Your task to perform on an android device: turn off wifi Image 0: 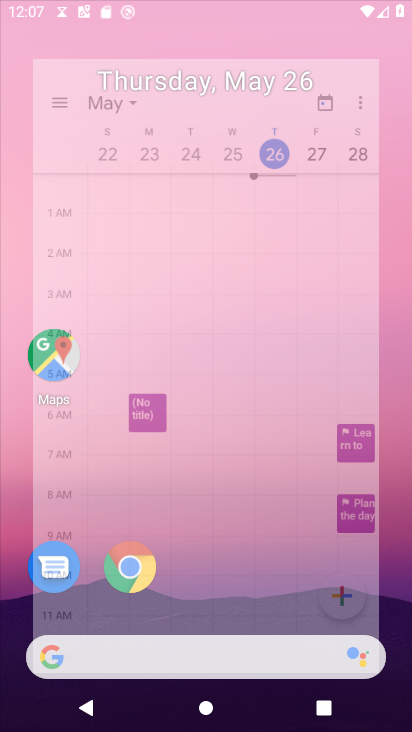
Step 0: drag from (295, 552) to (190, 68)
Your task to perform on an android device: turn off wifi Image 1: 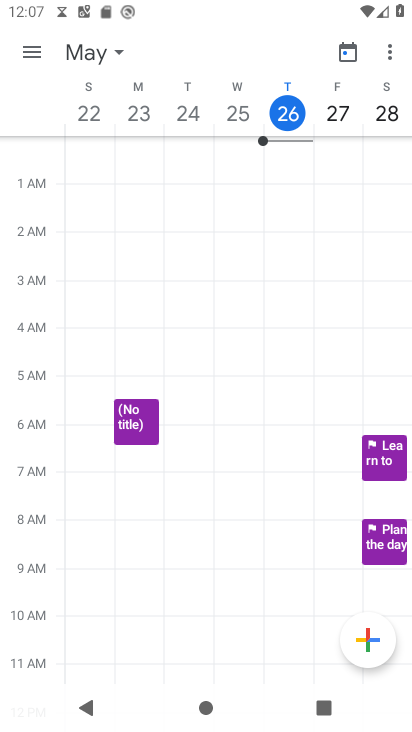
Step 1: press home button
Your task to perform on an android device: turn off wifi Image 2: 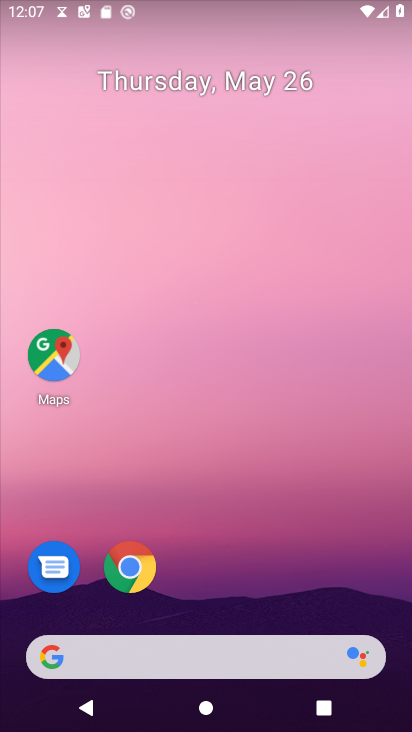
Step 2: drag from (201, 215) to (180, 684)
Your task to perform on an android device: turn off wifi Image 3: 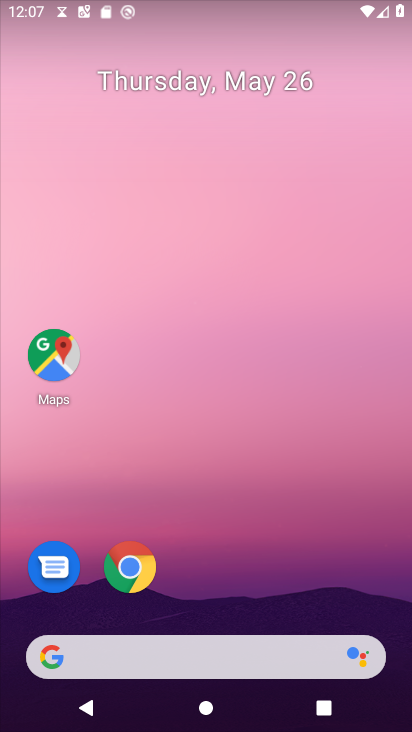
Step 3: drag from (253, 17) to (257, 730)
Your task to perform on an android device: turn off wifi Image 4: 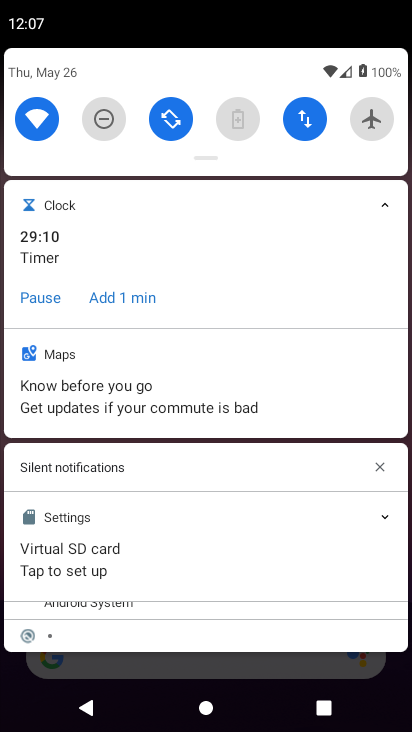
Step 4: click (26, 107)
Your task to perform on an android device: turn off wifi Image 5: 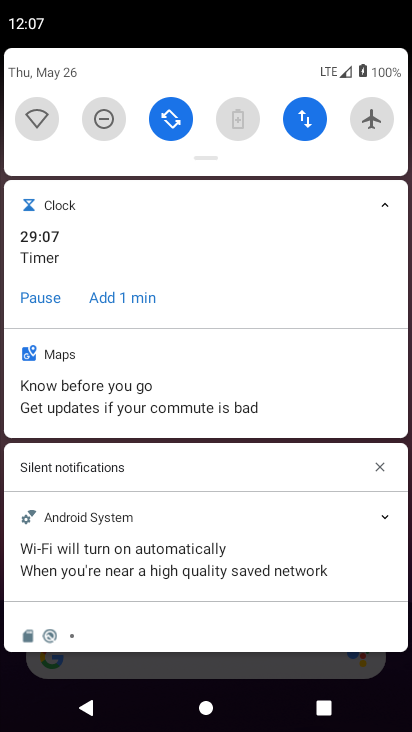
Step 5: task complete